Your task to perform on an android device: open a bookmark in the chrome app Image 0: 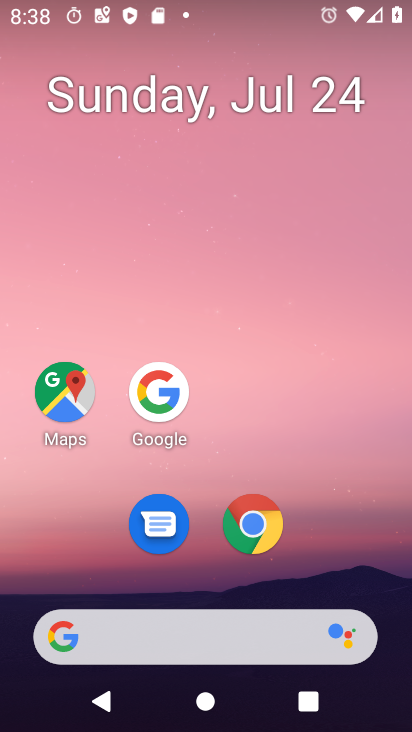
Step 0: press home button
Your task to perform on an android device: open a bookmark in the chrome app Image 1: 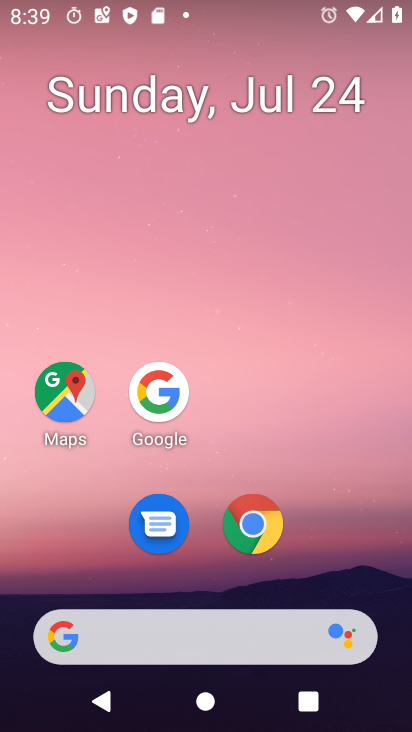
Step 1: click (255, 533)
Your task to perform on an android device: open a bookmark in the chrome app Image 2: 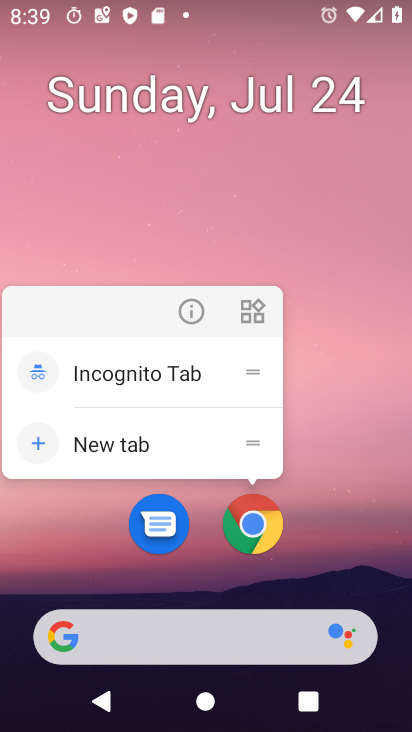
Step 2: click (267, 520)
Your task to perform on an android device: open a bookmark in the chrome app Image 3: 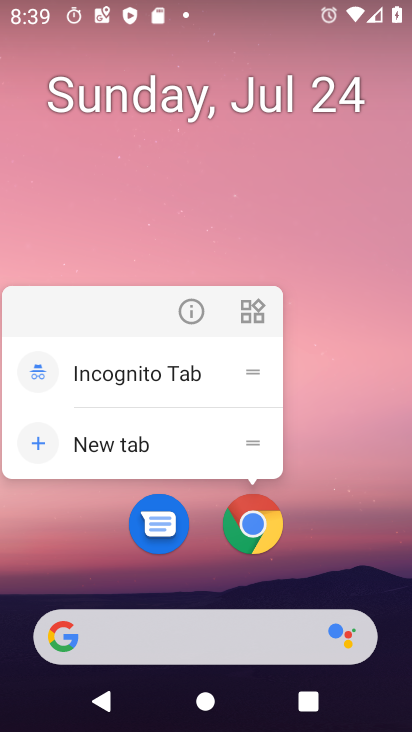
Step 3: click (267, 521)
Your task to perform on an android device: open a bookmark in the chrome app Image 4: 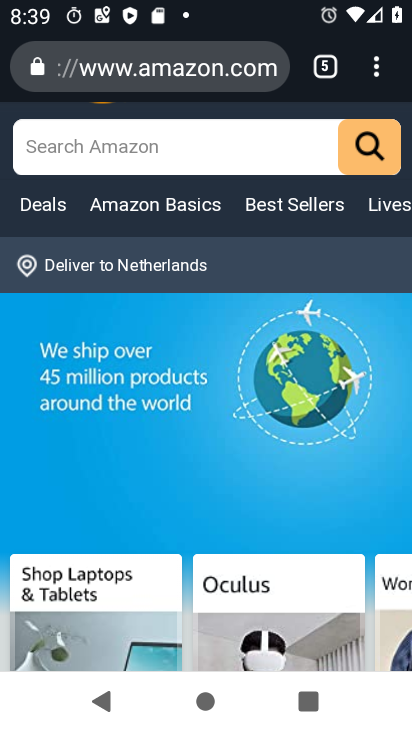
Step 4: task complete